Your task to perform on an android device: Open notification settings Image 0: 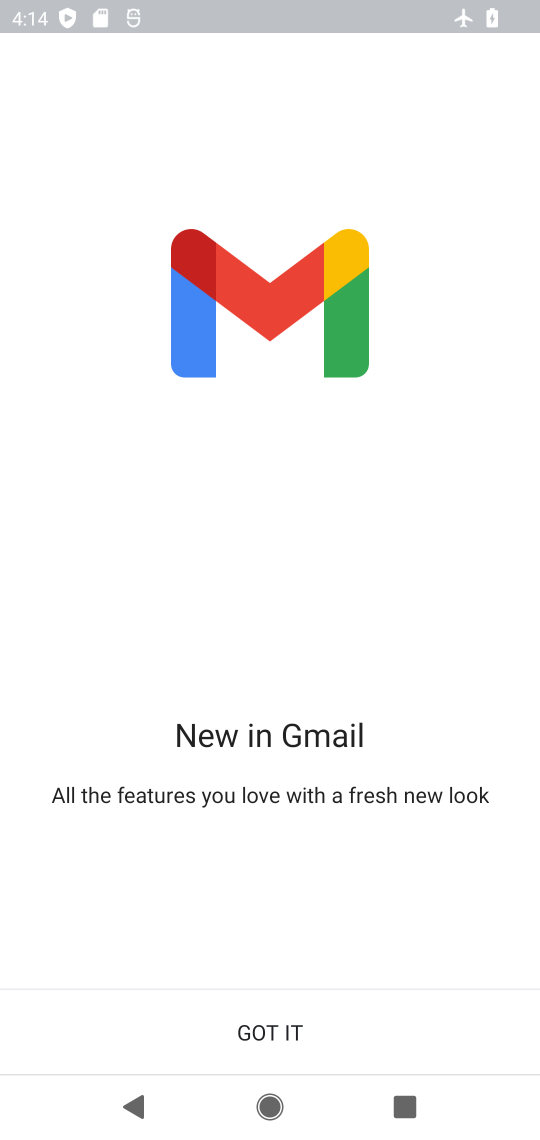
Step 0: press home button
Your task to perform on an android device: Open notification settings Image 1: 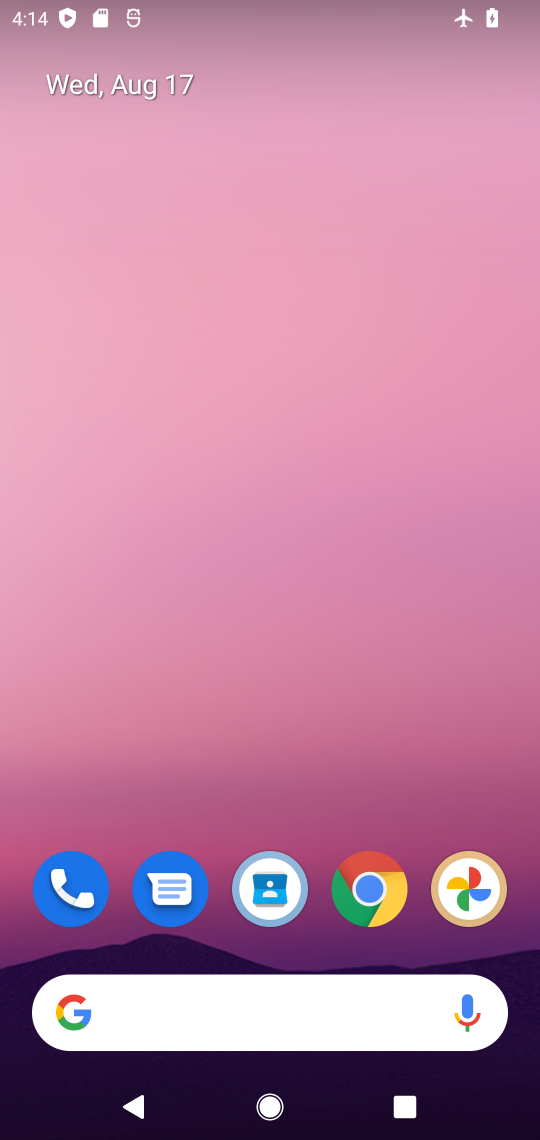
Step 1: drag from (309, 743) to (245, 102)
Your task to perform on an android device: Open notification settings Image 2: 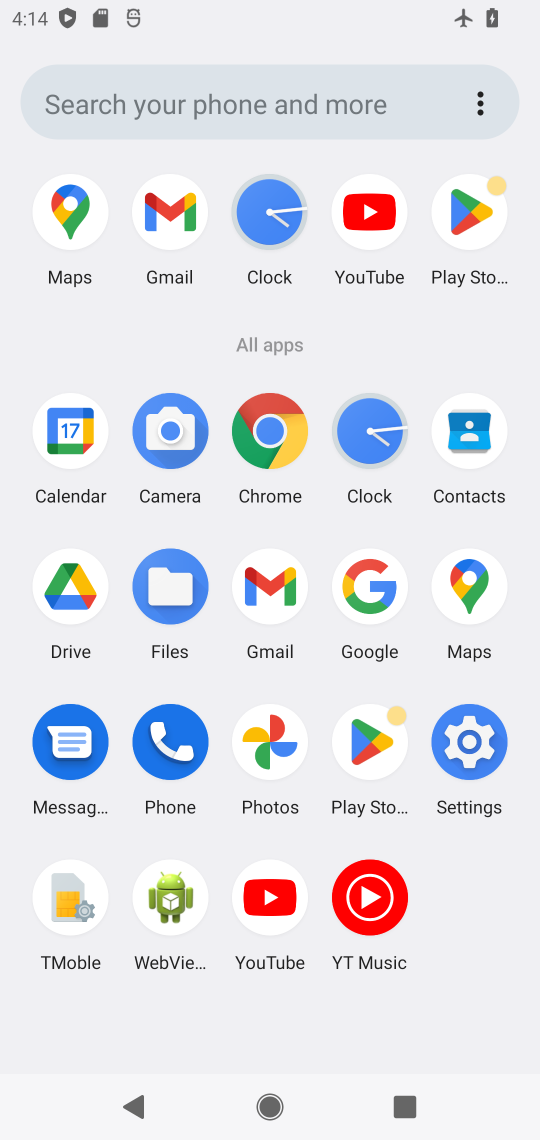
Step 2: click (473, 741)
Your task to perform on an android device: Open notification settings Image 3: 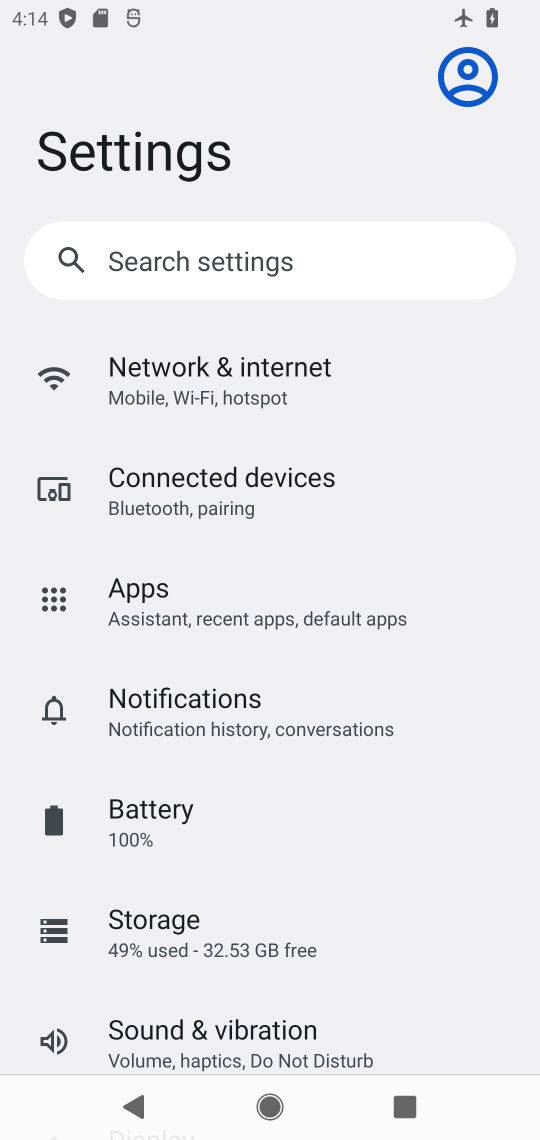
Step 3: click (184, 694)
Your task to perform on an android device: Open notification settings Image 4: 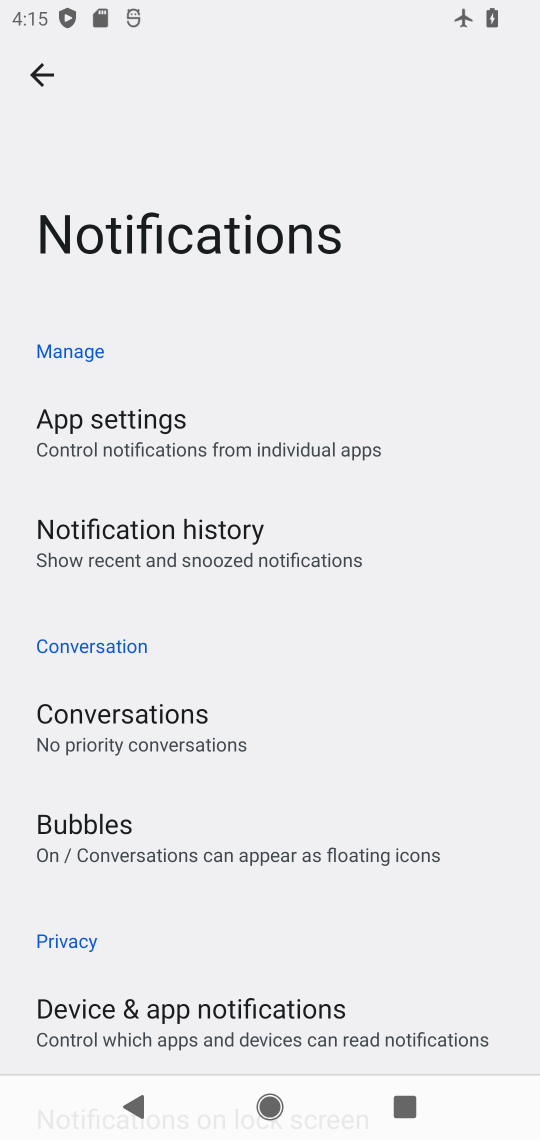
Step 4: task complete